Your task to perform on an android device: turn on javascript in the chrome app Image 0: 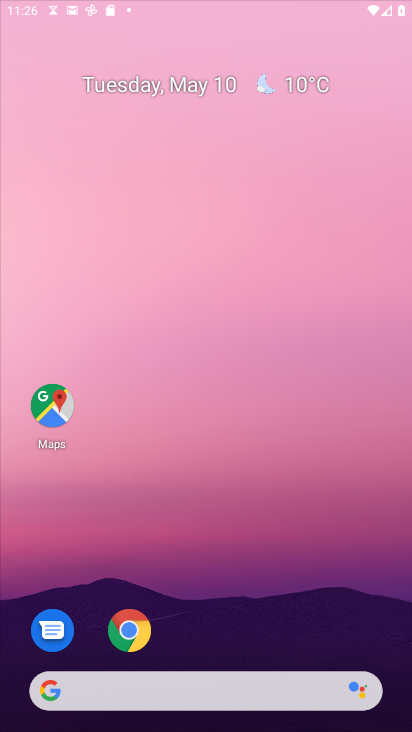
Step 0: click (244, 132)
Your task to perform on an android device: turn on javascript in the chrome app Image 1: 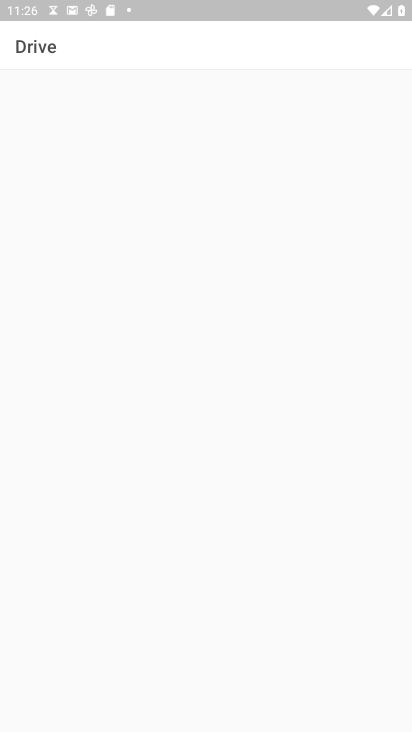
Step 1: press home button
Your task to perform on an android device: turn on javascript in the chrome app Image 2: 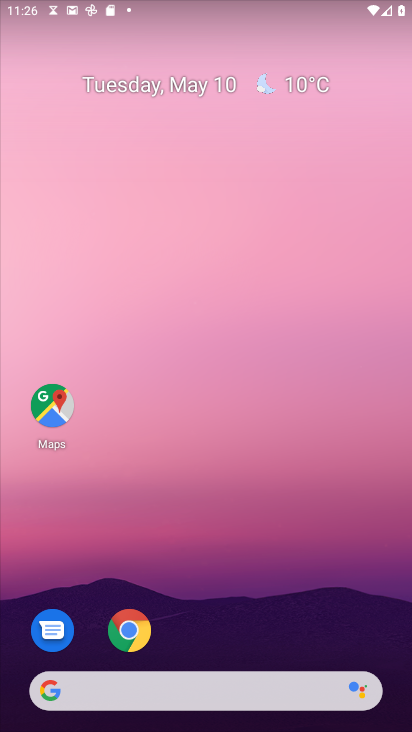
Step 2: drag from (264, 625) to (258, 43)
Your task to perform on an android device: turn on javascript in the chrome app Image 3: 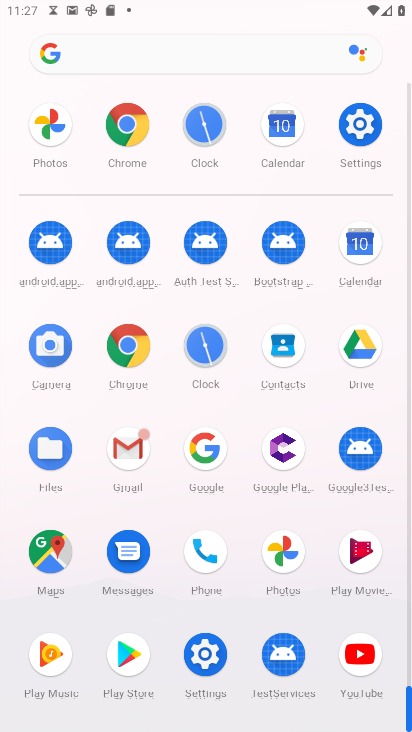
Step 3: click (128, 124)
Your task to perform on an android device: turn on javascript in the chrome app Image 4: 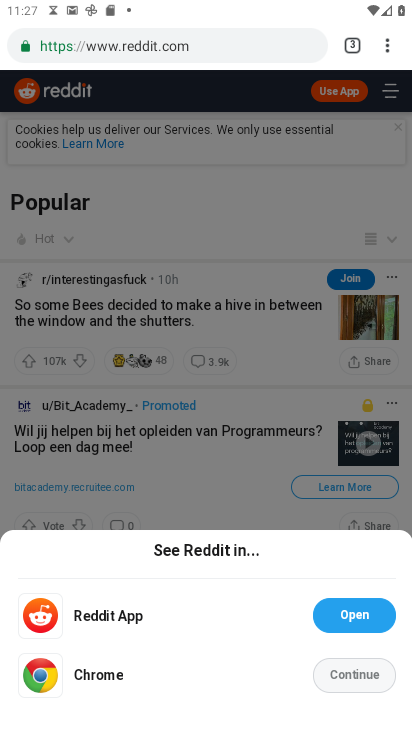
Step 4: click (389, 39)
Your task to perform on an android device: turn on javascript in the chrome app Image 5: 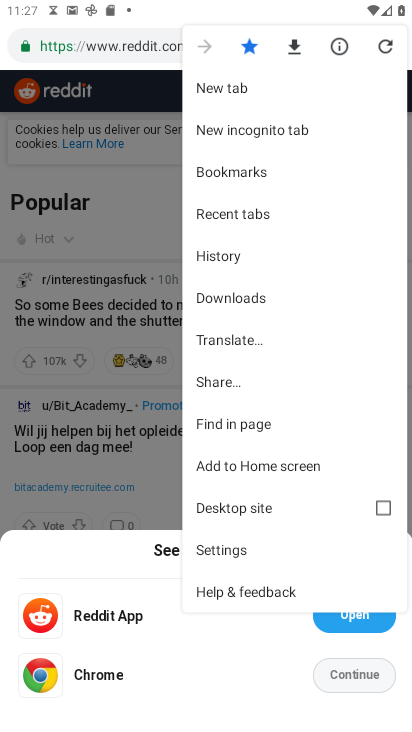
Step 5: click (254, 551)
Your task to perform on an android device: turn on javascript in the chrome app Image 6: 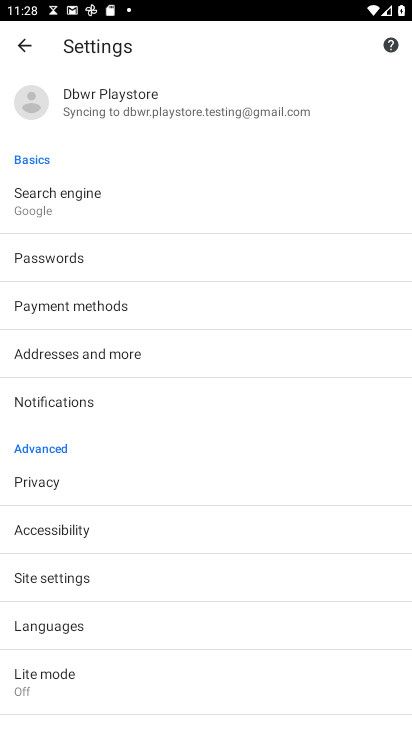
Step 6: click (118, 580)
Your task to perform on an android device: turn on javascript in the chrome app Image 7: 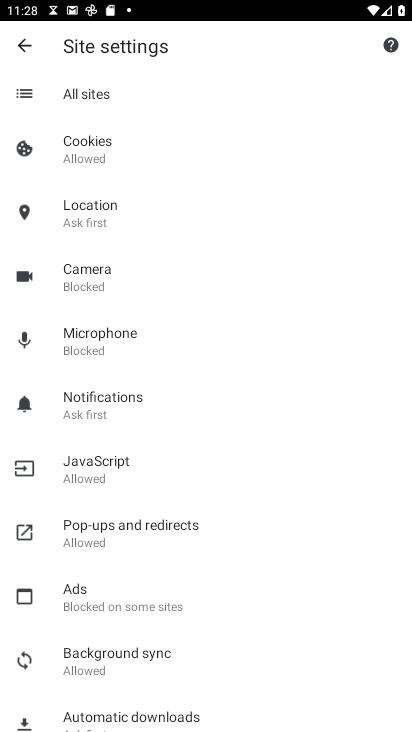
Step 7: click (154, 461)
Your task to perform on an android device: turn on javascript in the chrome app Image 8: 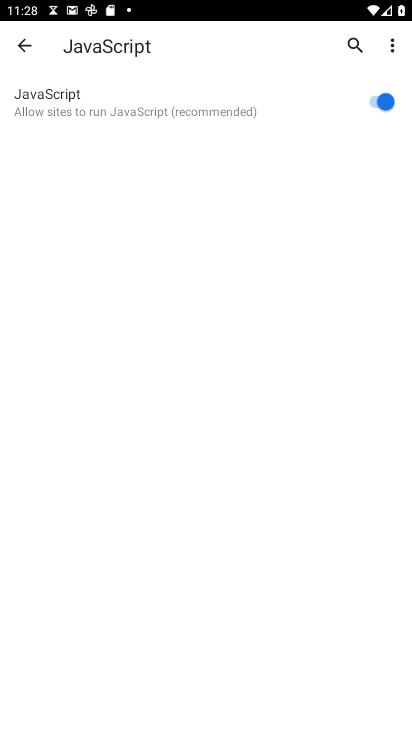
Step 8: task complete